Your task to perform on an android device: Open Maps and search for coffee Image 0: 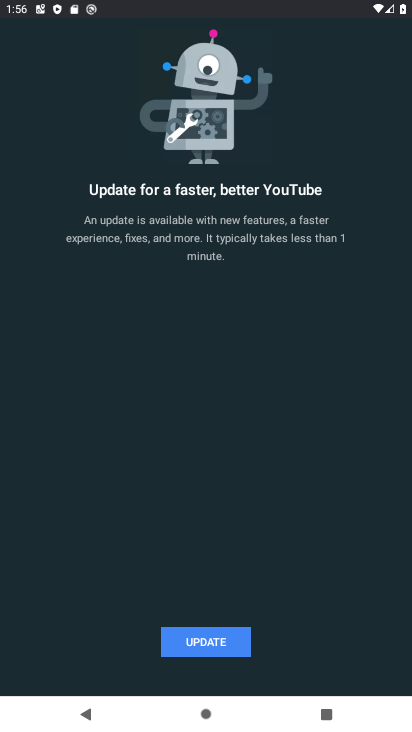
Step 0: press home button
Your task to perform on an android device: Open Maps and search for coffee Image 1: 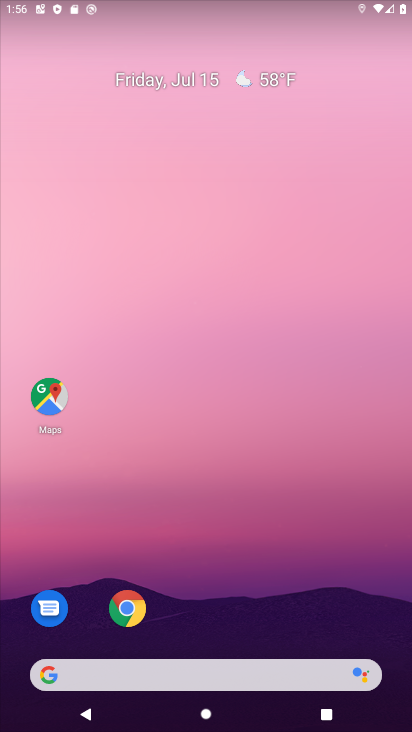
Step 1: click (39, 390)
Your task to perform on an android device: Open Maps and search for coffee Image 2: 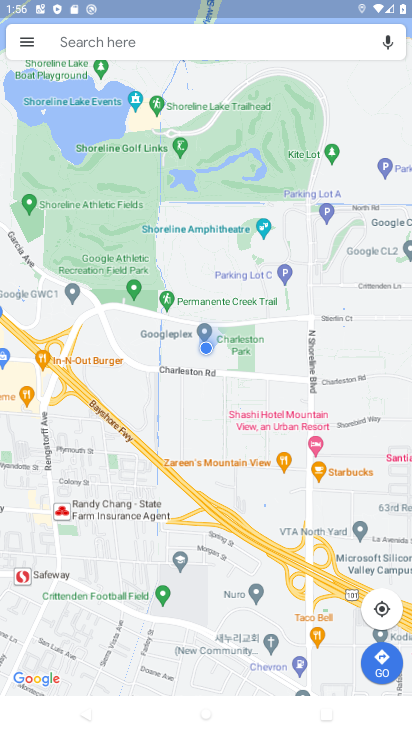
Step 2: click (156, 37)
Your task to perform on an android device: Open Maps and search for coffee Image 3: 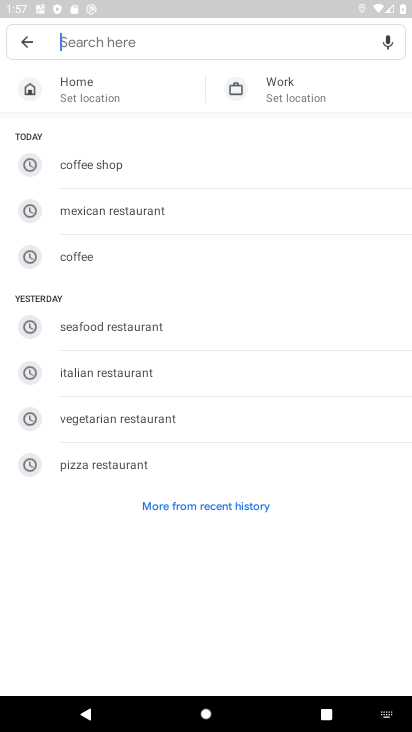
Step 3: type "coffee"
Your task to perform on an android device: Open Maps and search for coffee Image 4: 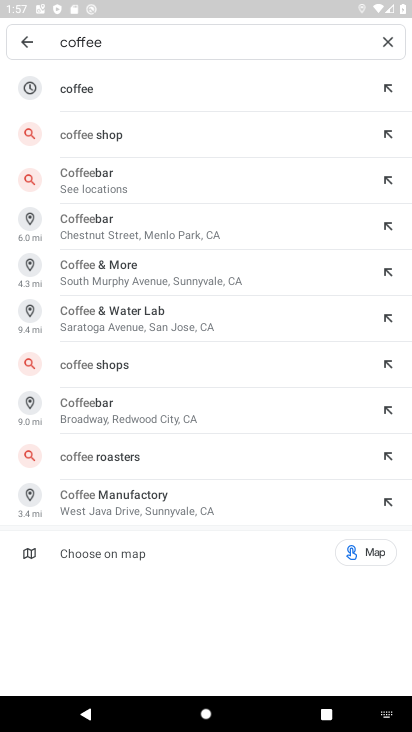
Step 4: click (87, 83)
Your task to perform on an android device: Open Maps and search for coffee Image 5: 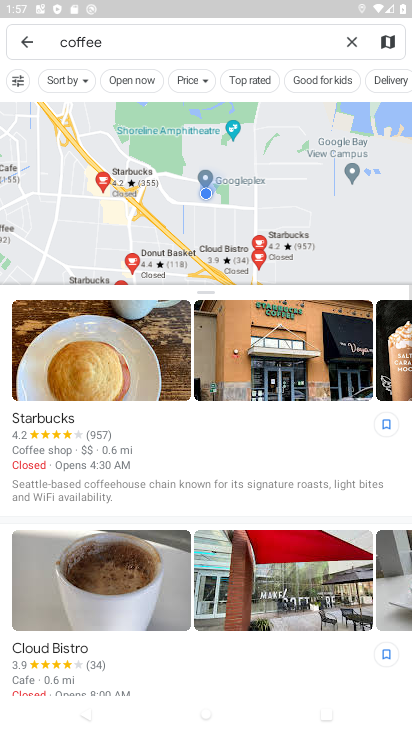
Step 5: task complete